Your task to perform on an android device: Turn off the flashlight Image 0: 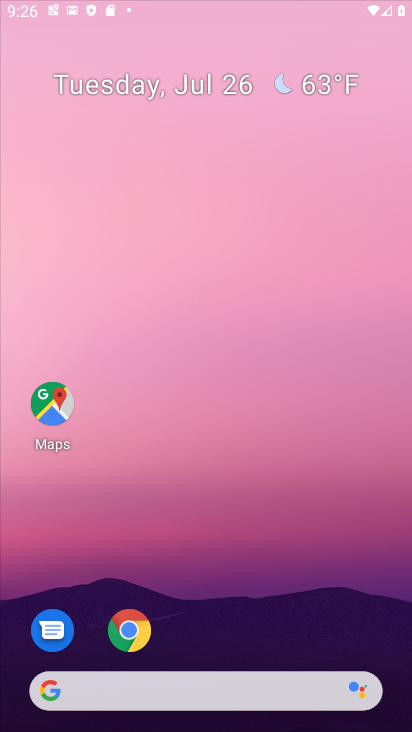
Step 0: press home button
Your task to perform on an android device: Turn off the flashlight Image 1: 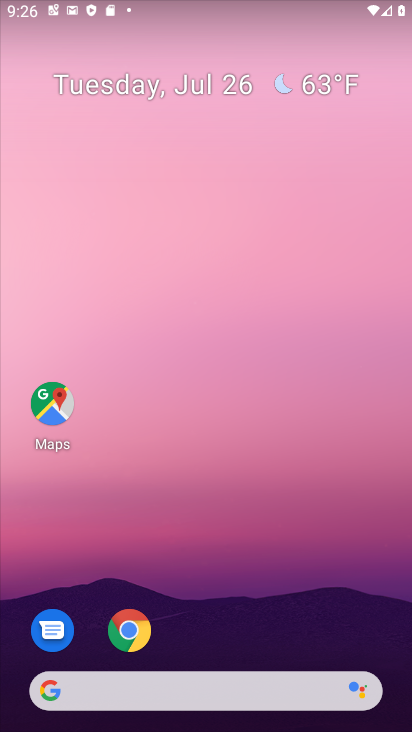
Step 1: drag from (243, 645) to (257, 0)
Your task to perform on an android device: Turn off the flashlight Image 2: 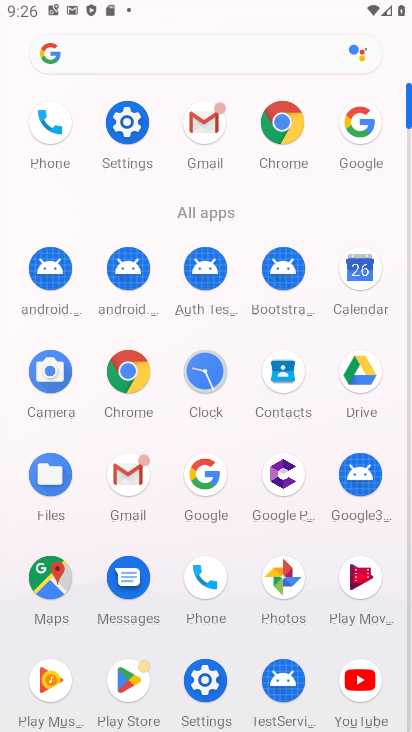
Step 2: click (127, 115)
Your task to perform on an android device: Turn off the flashlight Image 3: 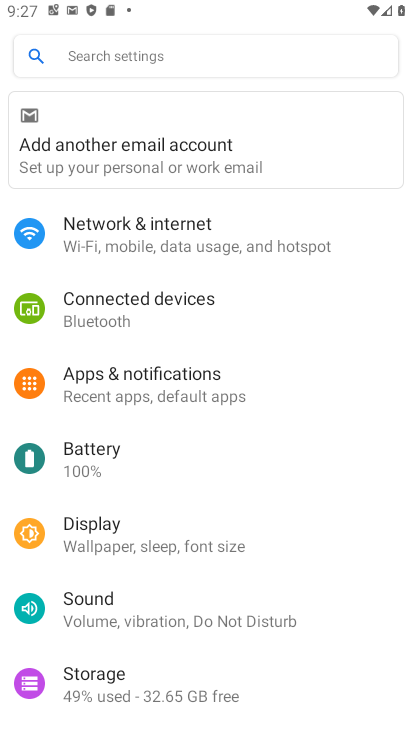
Step 3: click (109, 52)
Your task to perform on an android device: Turn off the flashlight Image 4: 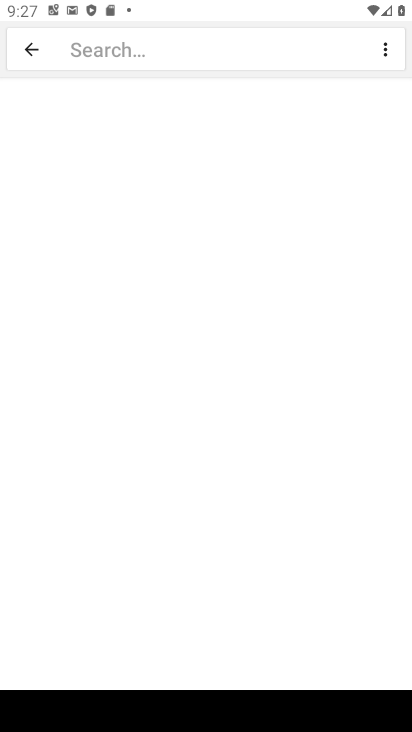
Step 4: type "flashlight"
Your task to perform on an android device: Turn off the flashlight Image 5: 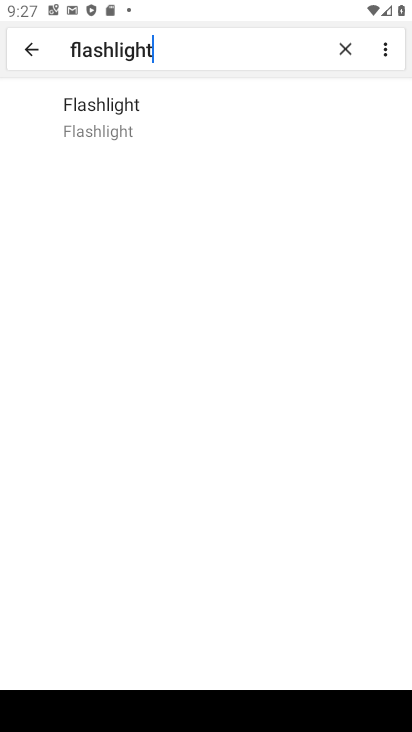
Step 5: click (135, 115)
Your task to perform on an android device: Turn off the flashlight Image 6: 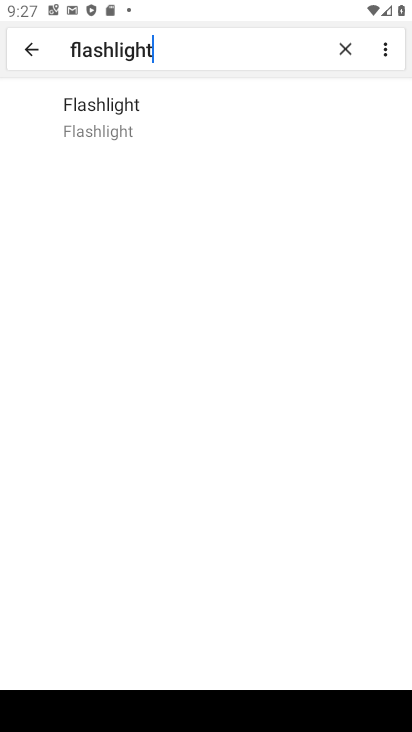
Step 6: task complete